Your task to perform on an android device: open app "AliExpress" (install if not already installed), go to login, and select forgot password Image 0: 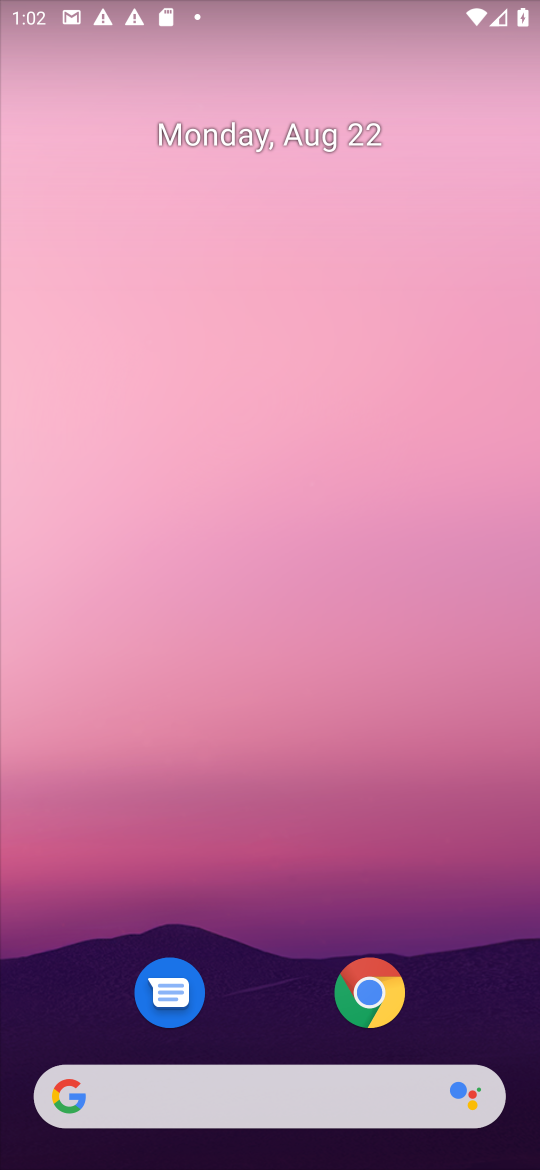
Step 0: drag from (195, 1073) to (312, 505)
Your task to perform on an android device: open app "AliExpress" (install if not already installed), go to login, and select forgot password Image 1: 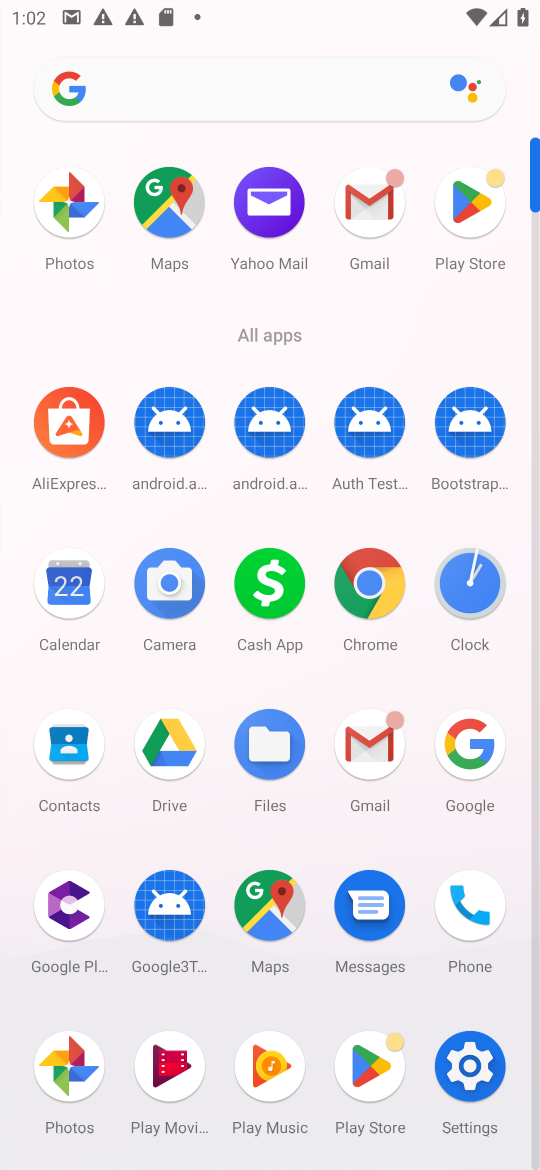
Step 1: click (475, 208)
Your task to perform on an android device: open app "AliExpress" (install if not already installed), go to login, and select forgot password Image 2: 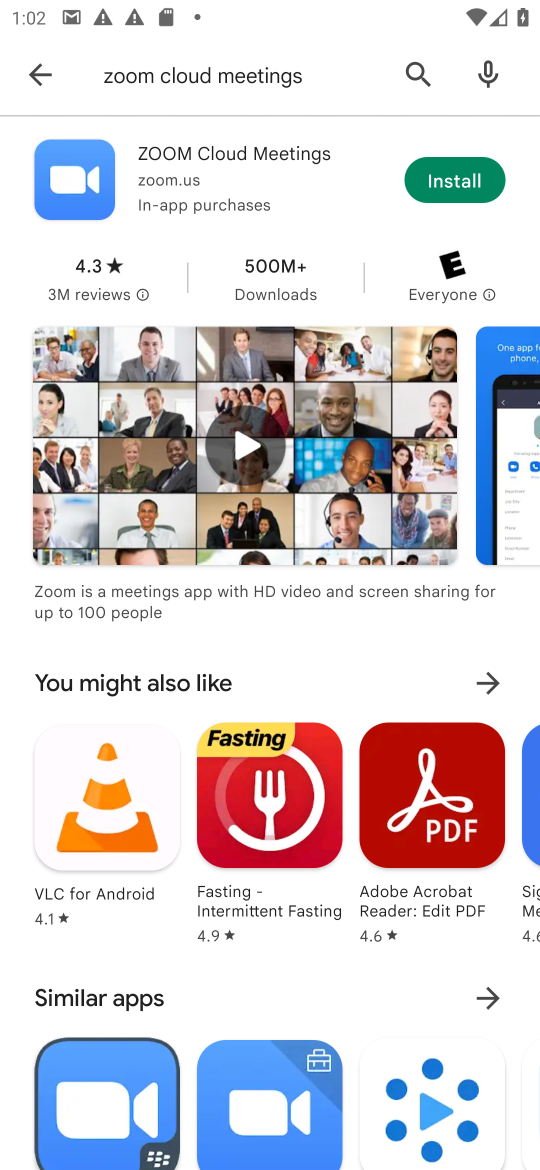
Step 2: click (428, 154)
Your task to perform on an android device: open app "AliExpress" (install if not already installed), go to login, and select forgot password Image 3: 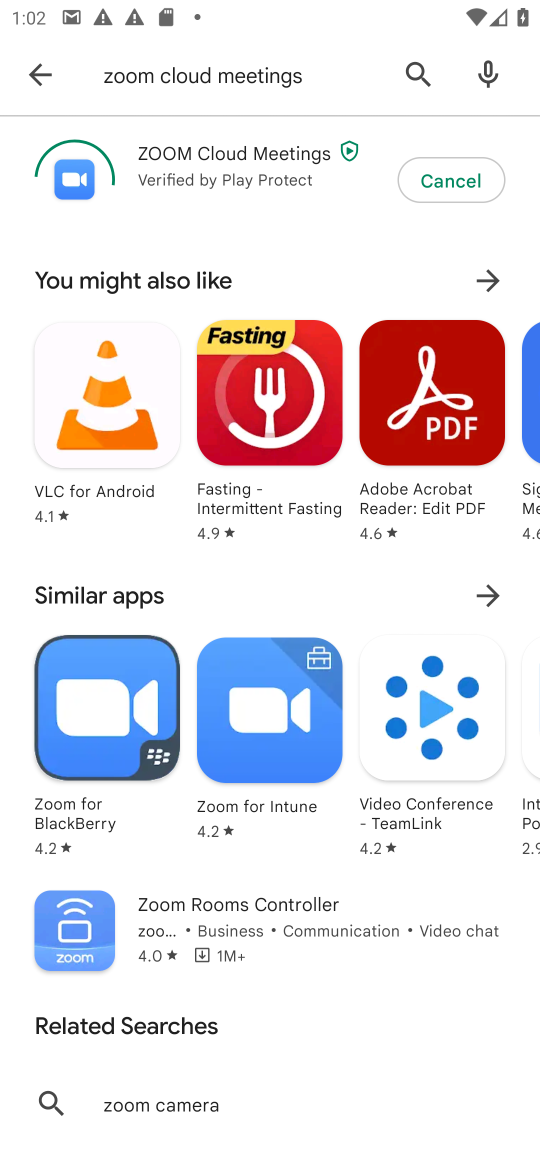
Step 3: click (417, 75)
Your task to perform on an android device: open app "AliExpress" (install if not already installed), go to login, and select forgot password Image 4: 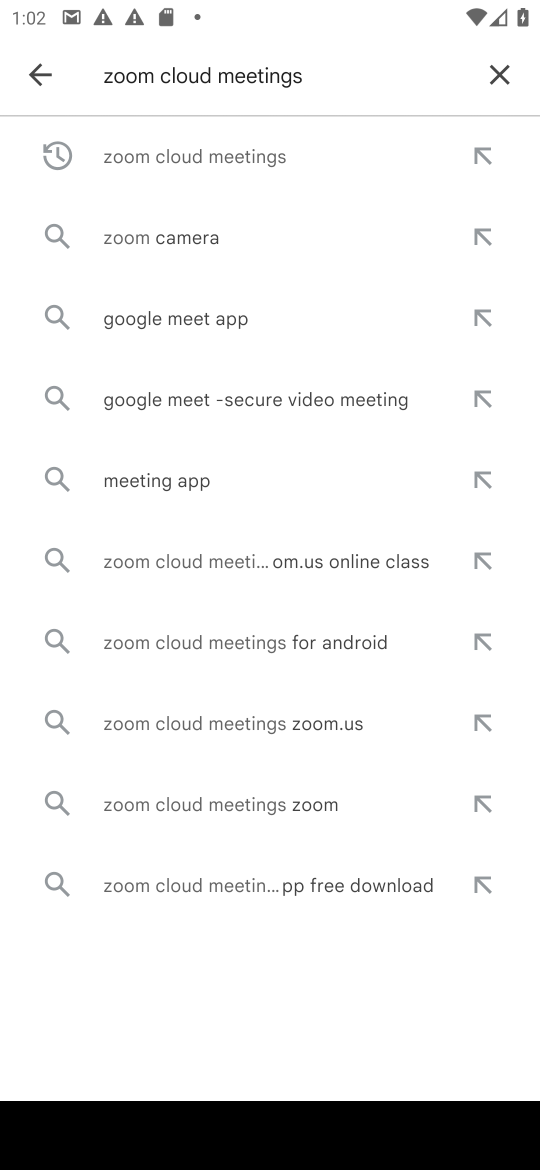
Step 4: click (499, 75)
Your task to perform on an android device: open app "AliExpress" (install if not already installed), go to login, and select forgot password Image 5: 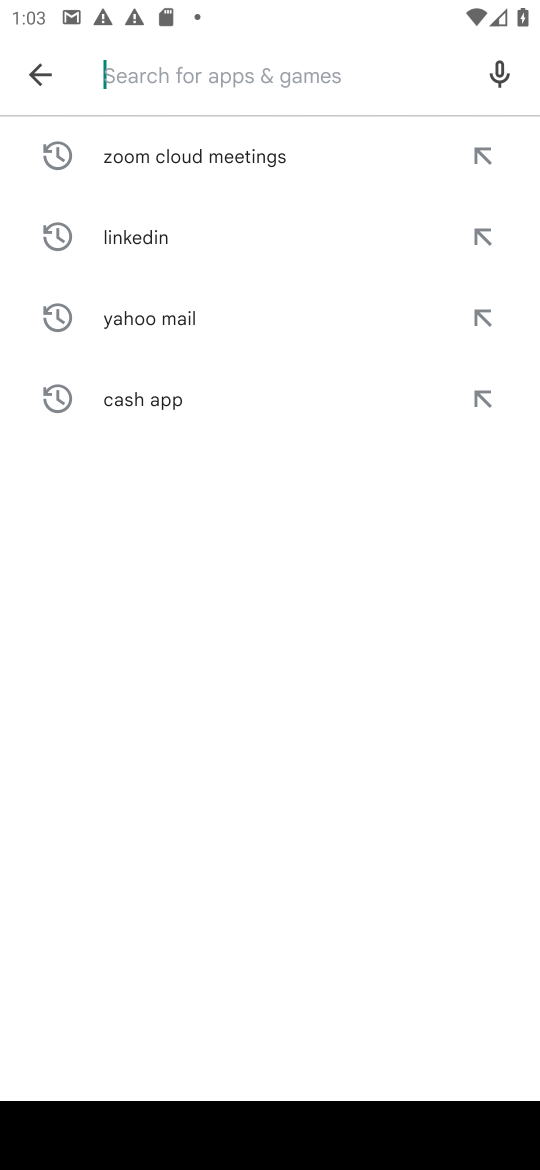
Step 5: click (119, 68)
Your task to perform on an android device: open app "AliExpress" (install if not already installed), go to login, and select forgot password Image 6: 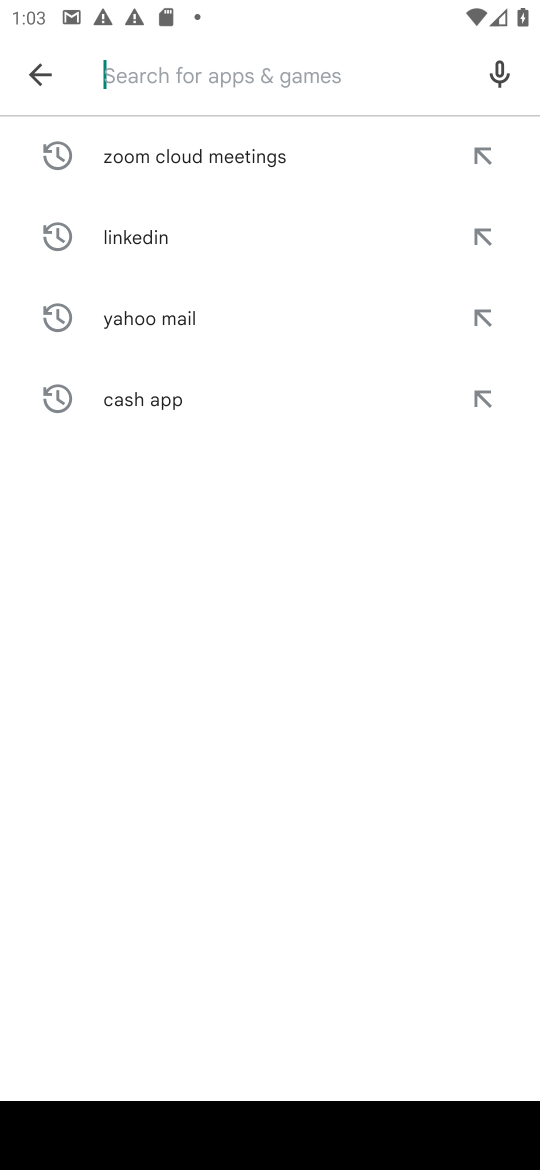
Step 6: type "AliExpress"
Your task to perform on an android device: open app "AliExpress" (install if not already installed), go to login, and select forgot password Image 7: 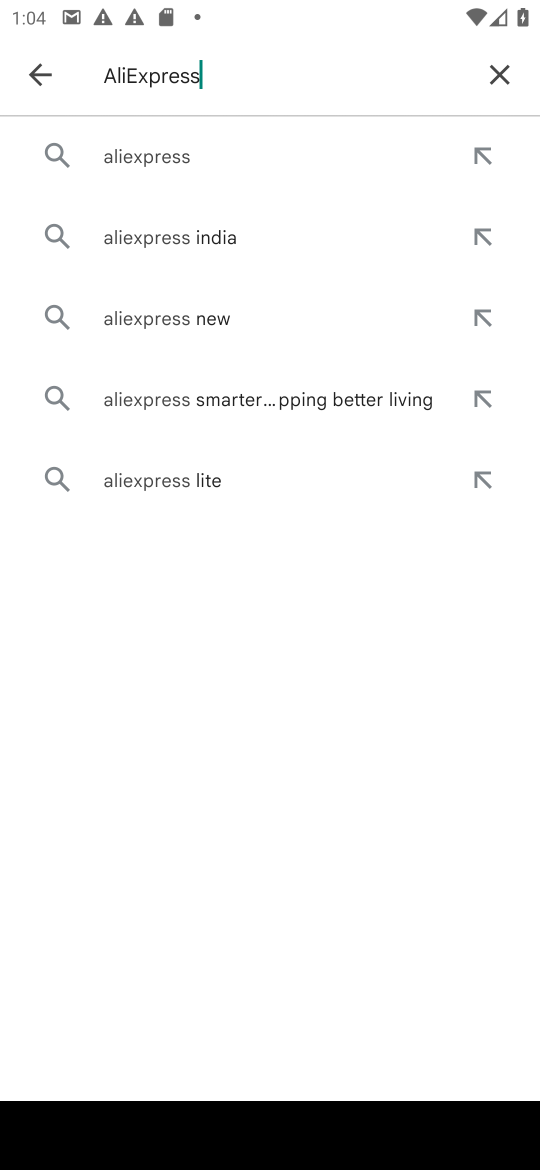
Step 7: click (98, 167)
Your task to perform on an android device: open app "AliExpress" (install if not already installed), go to login, and select forgot password Image 8: 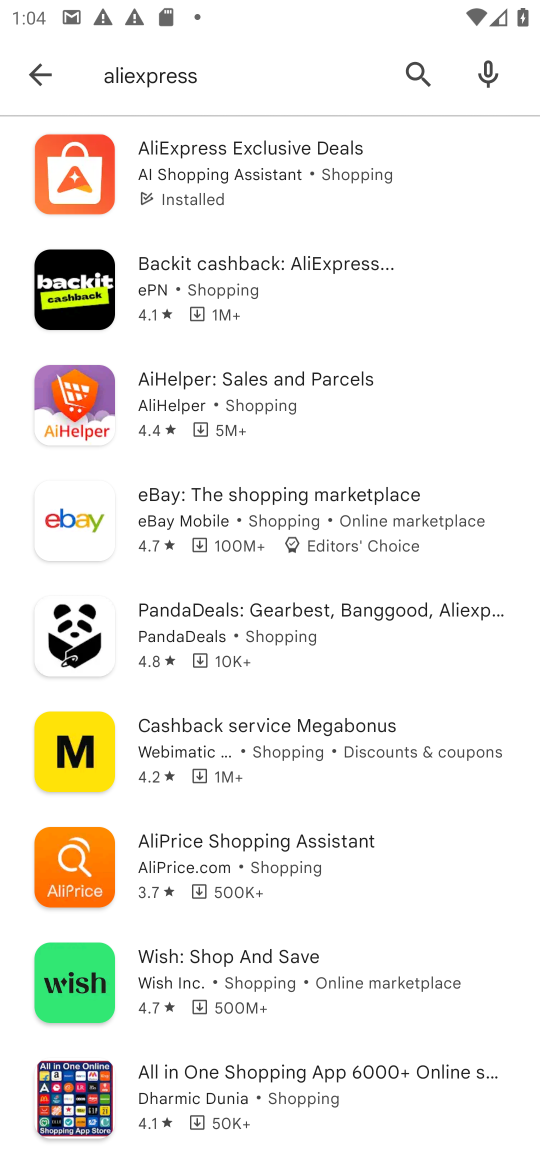
Step 8: click (225, 184)
Your task to perform on an android device: open app "AliExpress" (install if not already installed), go to login, and select forgot password Image 9: 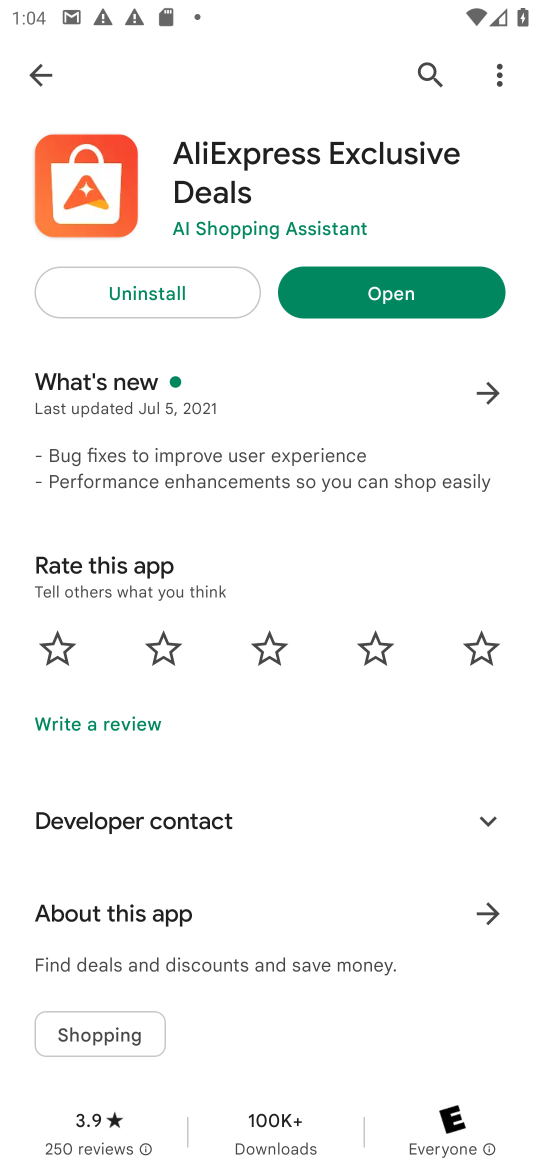
Step 9: click (371, 288)
Your task to perform on an android device: open app "AliExpress" (install if not already installed), go to login, and select forgot password Image 10: 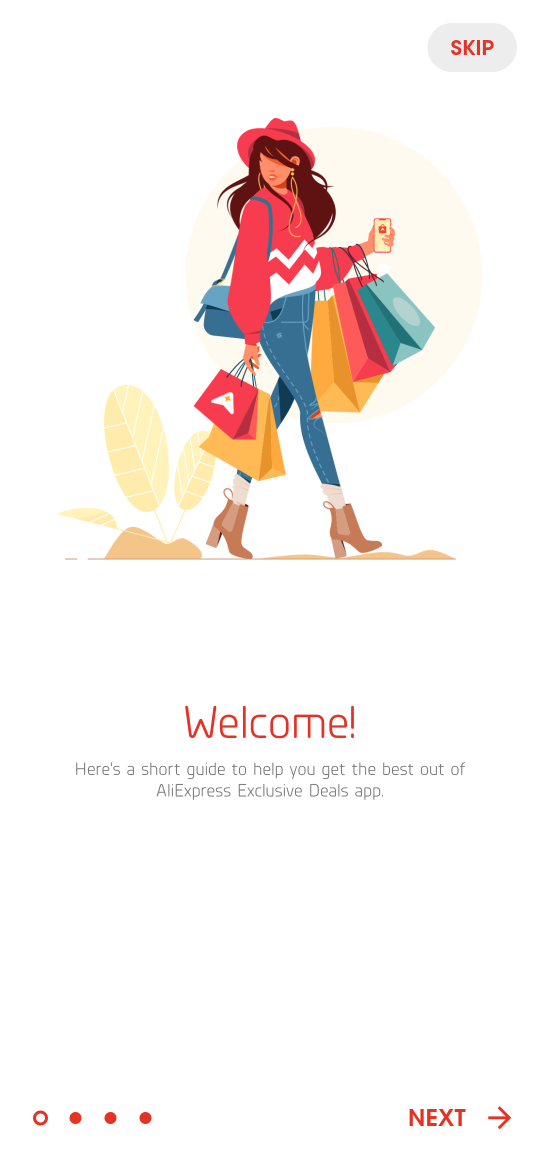
Step 10: task complete